Your task to perform on an android device: Search for vegetarian restaurants on Maps Image 0: 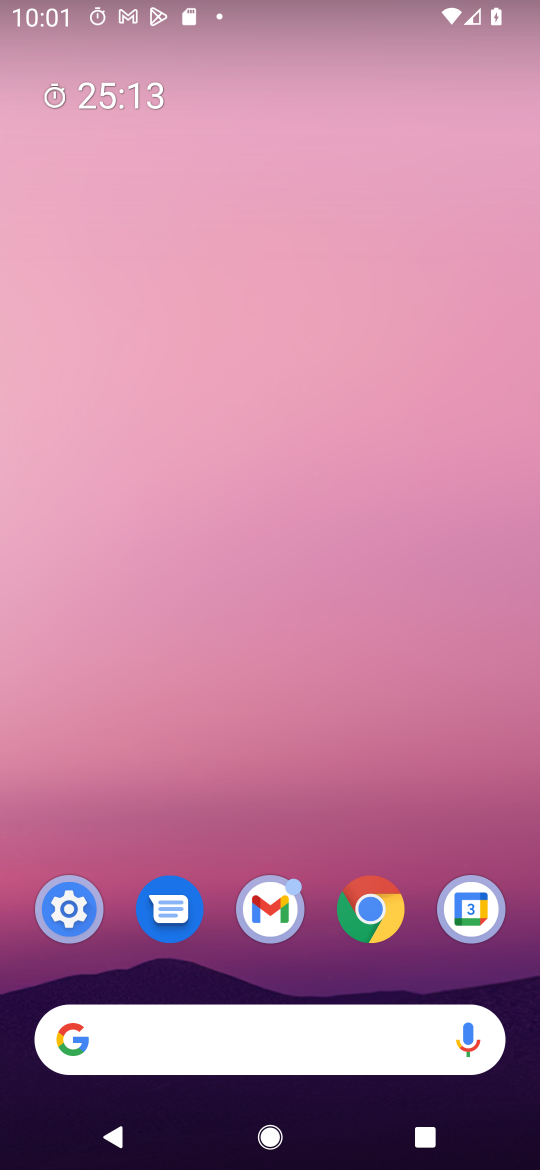
Step 0: press home button
Your task to perform on an android device: Search for vegetarian restaurants on Maps Image 1: 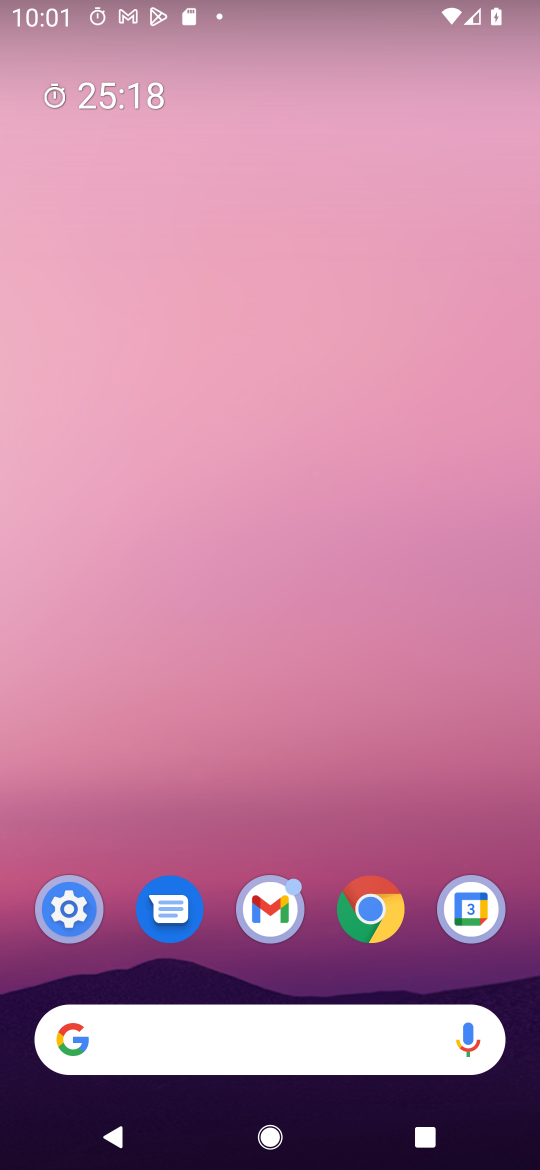
Step 1: drag from (391, 734) to (415, 292)
Your task to perform on an android device: Search for vegetarian restaurants on Maps Image 2: 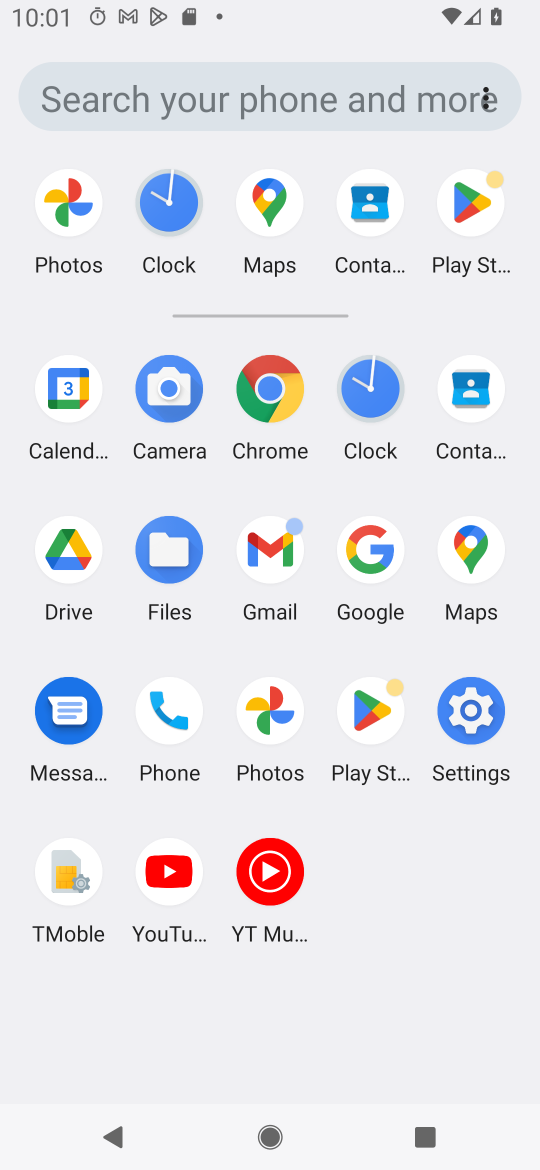
Step 2: click (473, 551)
Your task to perform on an android device: Search for vegetarian restaurants on Maps Image 3: 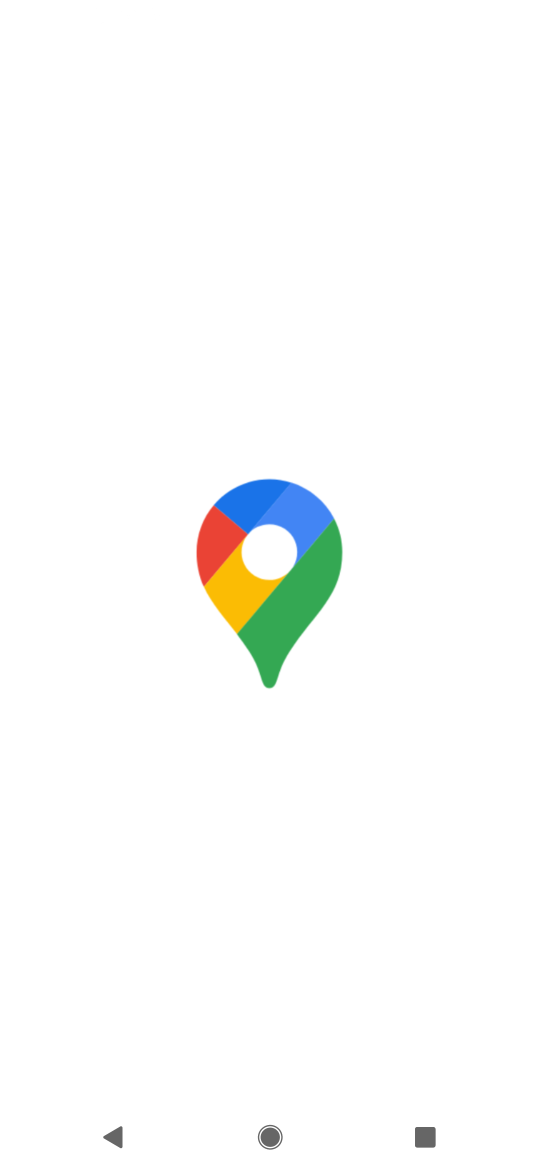
Step 3: task complete